Your task to perform on an android device: Open internet settings Image 0: 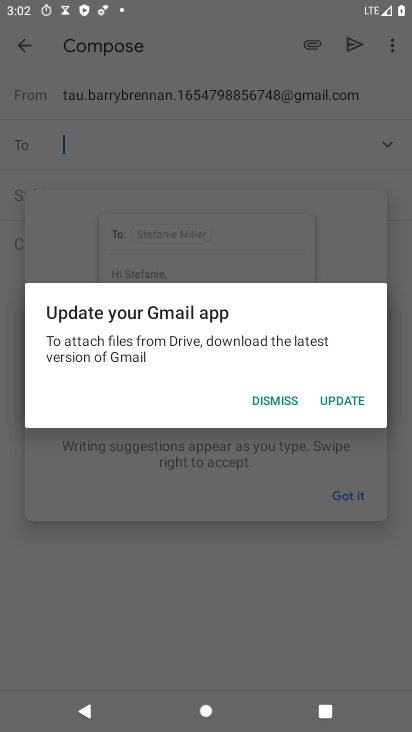
Step 0: press home button
Your task to perform on an android device: Open internet settings Image 1: 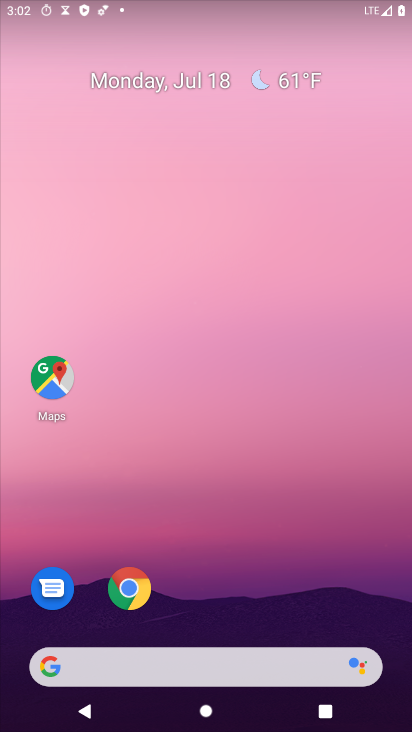
Step 1: drag from (297, 539) to (327, 0)
Your task to perform on an android device: Open internet settings Image 2: 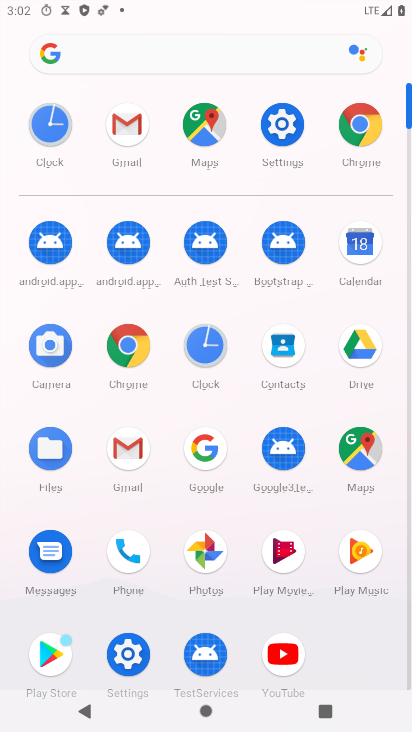
Step 2: click (283, 123)
Your task to perform on an android device: Open internet settings Image 3: 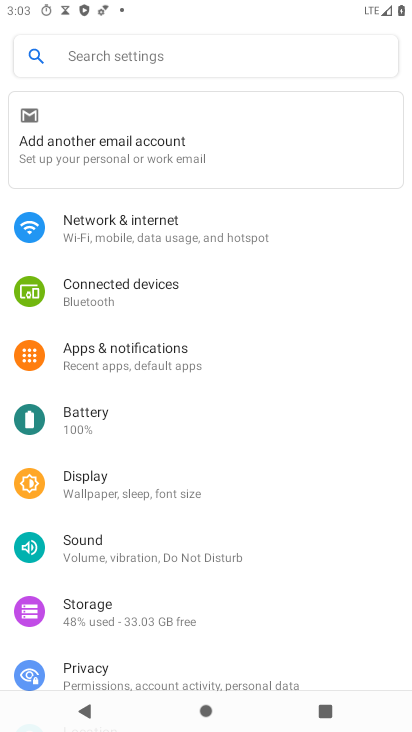
Step 3: click (98, 224)
Your task to perform on an android device: Open internet settings Image 4: 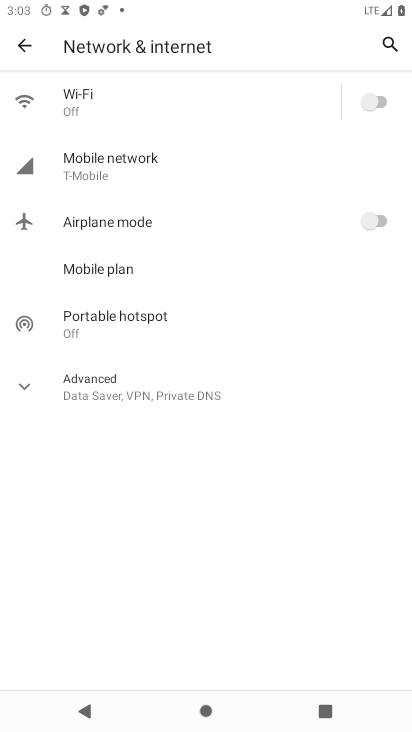
Step 4: task complete